Your task to perform on an android device: delete a single message in the gmail app Image 0: 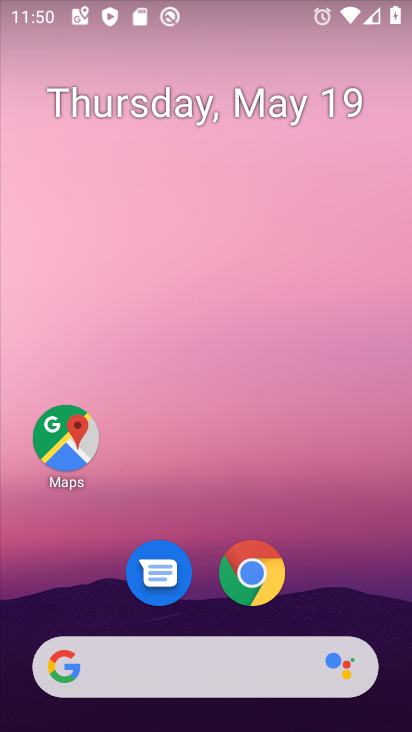
Step 0: drag from (210, 609) to (272, 6)
Your task to perform on an android device: delete a single message in the gmail app Image 1: 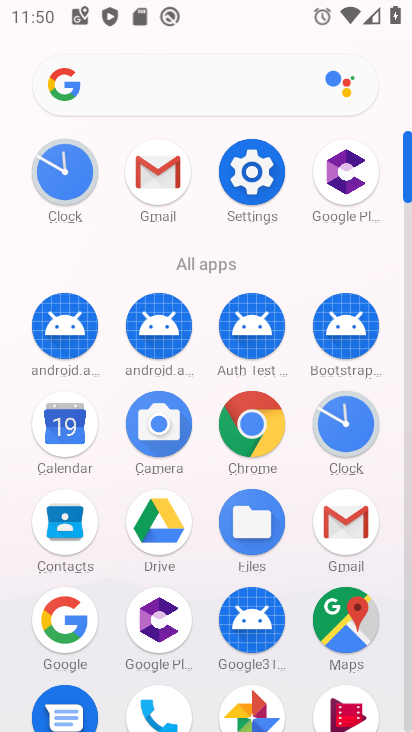
Step 1: click (356, 537)
Your task to perform on an android device: delete a single message in the gmail app Image 2: 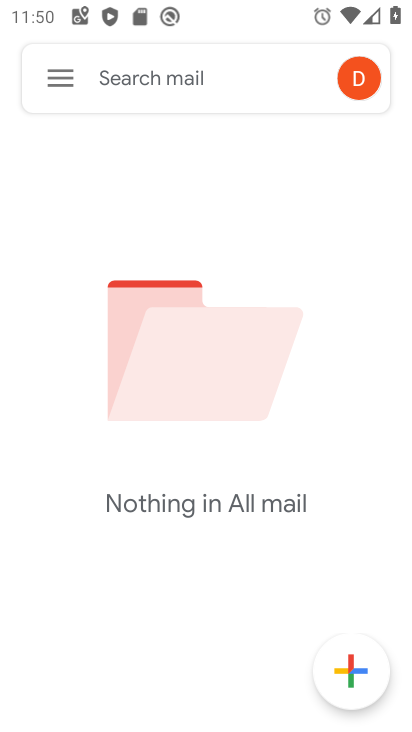
Step 2: task complete